Your task to perform on an android device: turn on location history Image 0: 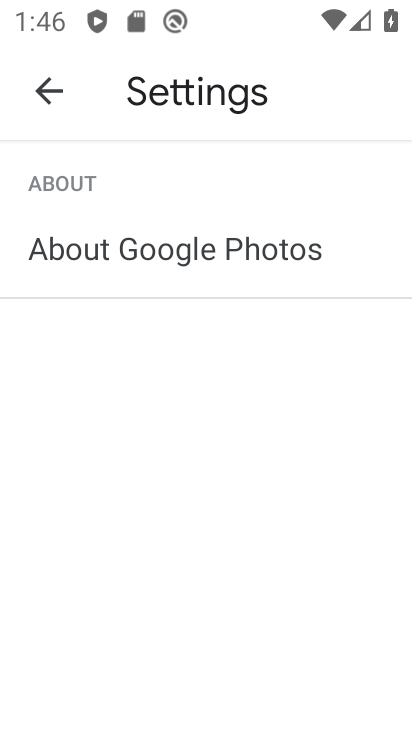
Step 0: press back button
Your task to perform on an android device: turn on location history Image 1: 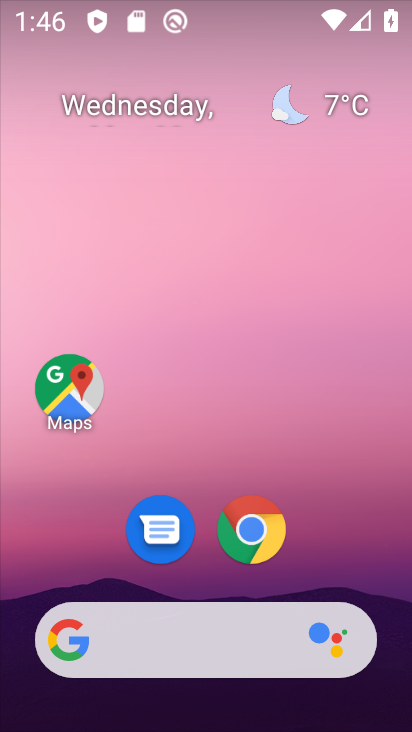
Step 1: drag from (43, 578) to (211, 180)
Your task to perform on an android device: turn on location history Image 2: 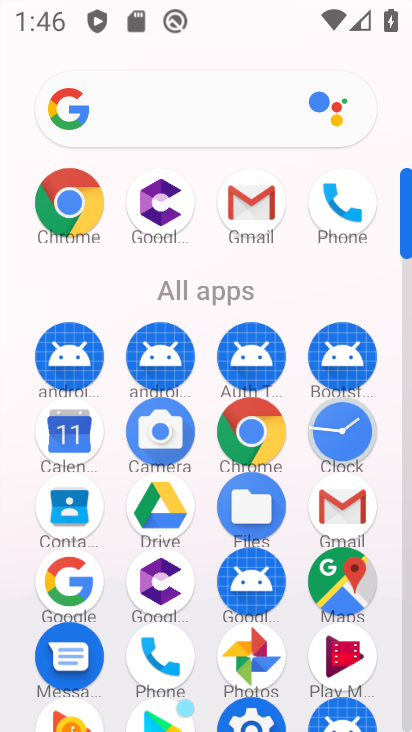
Step 2: click (239, 720)
Your task to perform on an android device: turn on location history Image 3: 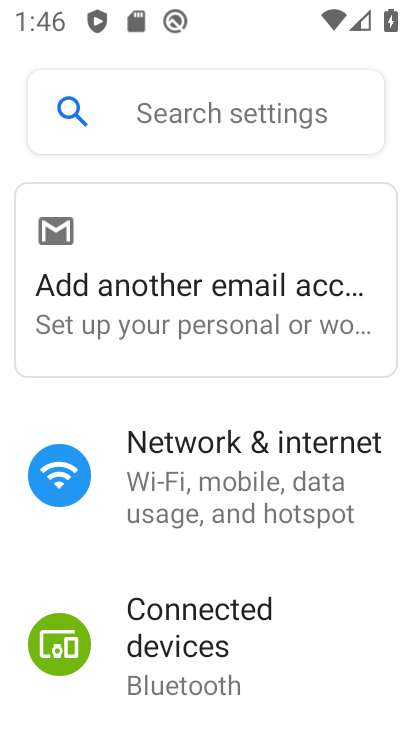
Step 3: drag from (191, 709) to (306, 251)
Your task to perform on an android device: turn on location history Image 4: 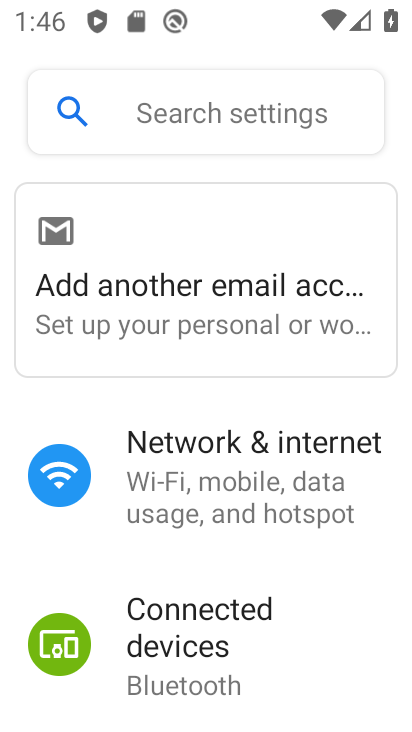
Step 4: drag from (128, 702) to (306, 172)
Your task to perform on an android device: turn on location history Image 5: 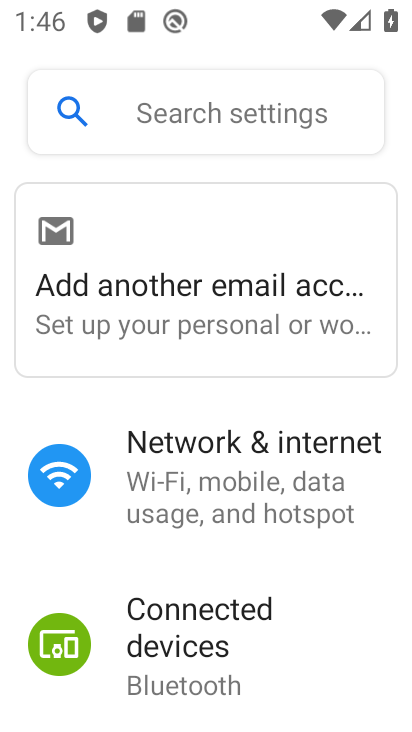
Step 5: drag from (153, 711) to (287, 167)
Your task to perform on an android device: turn on location history Image 6: 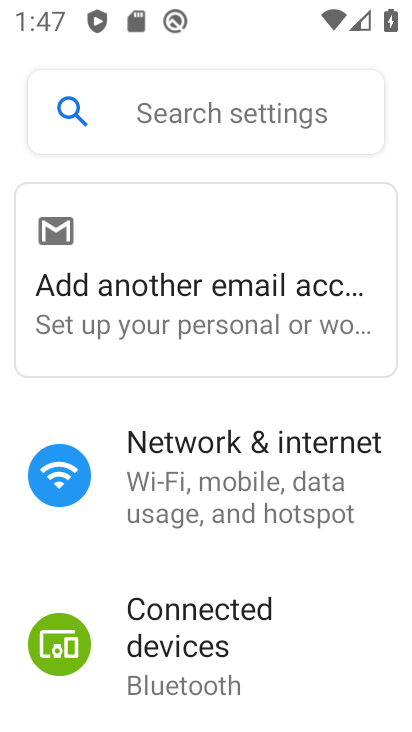
Step 6: drag from (169, 653) to (268, 184)
Your task to perform on an android device: turn on location history Image 7: 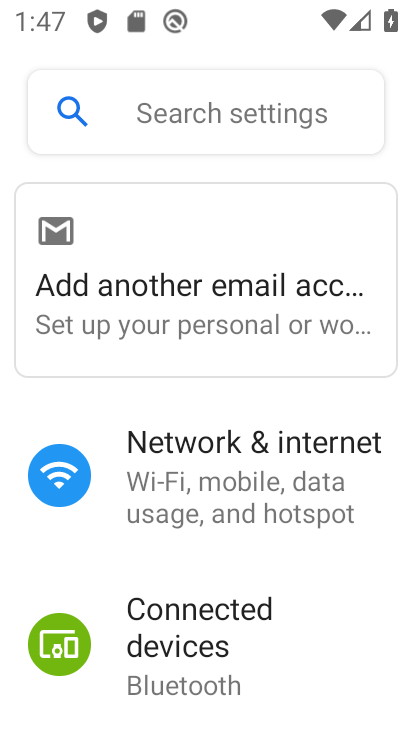
Step 7: drag from (111, 694) to (294, 164)
Your task to perform on an android device: turn on location history Image 8: 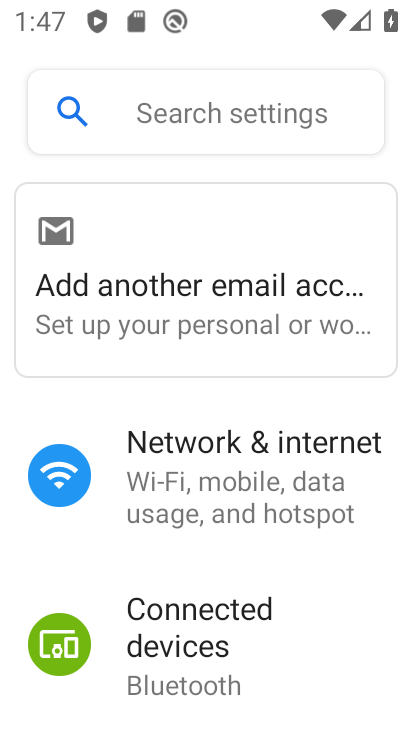
Step 8: drag from (62, 707) to (296, 171)
Your task to perform on an android device: turn on location history Image 9: 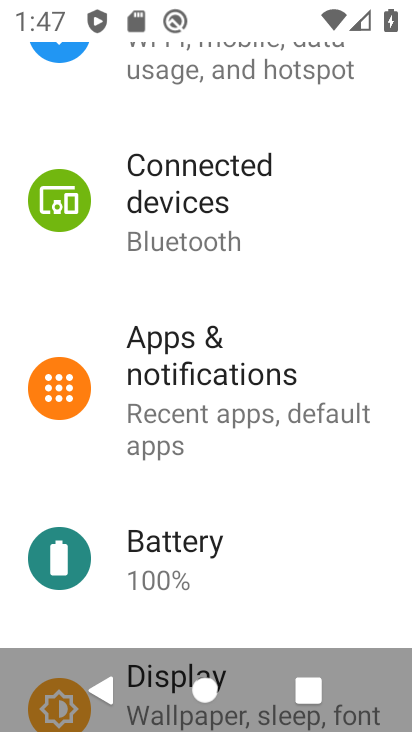
Step 9: drag from (30, 605) to (301, 97)
Your task to perform on an android device: turn on location history Image 10: 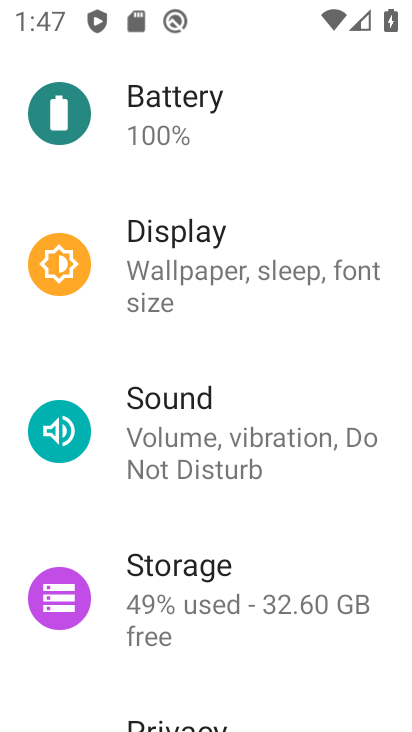
Step 10: drag from (3, 693) to (320, 132)
Your task to perform on an android device: turn on location history Image 11: 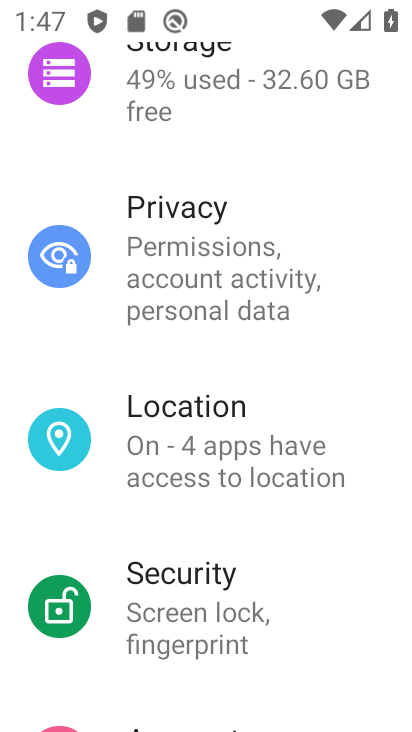
Step 11: click (149, 439)
Your task to perform on an android device: turn on location history Image 12: 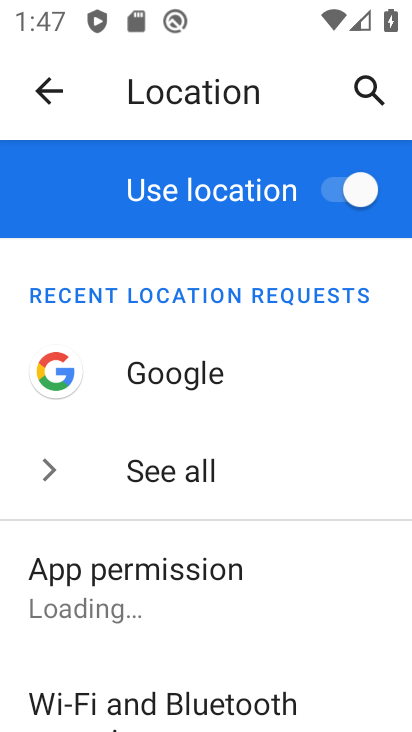
Step 12: drag from (95, 654) to (222, 228)
Your task to perform on an android device: turn on location history Image 13: 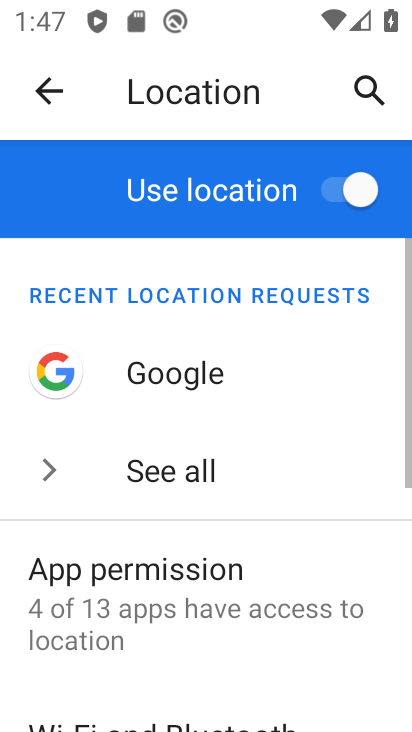
Step 13: drag from (34, 717) to (238, 229)
Your task to perform on an android device: turn on location history Image 14: 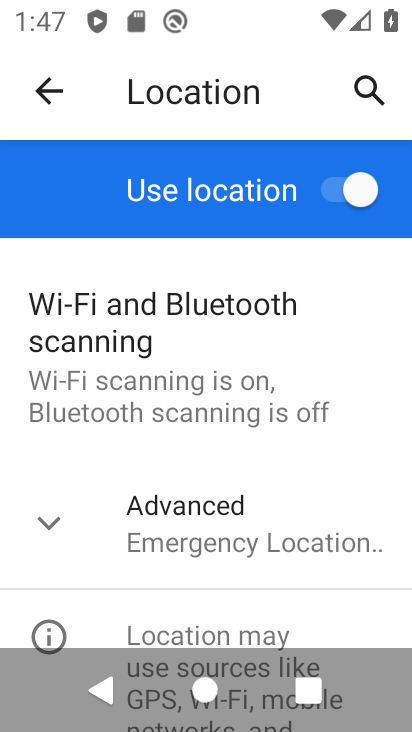
Step 14: click (202, 522)
Your task to perform on an android device: turn on location history Image 15: 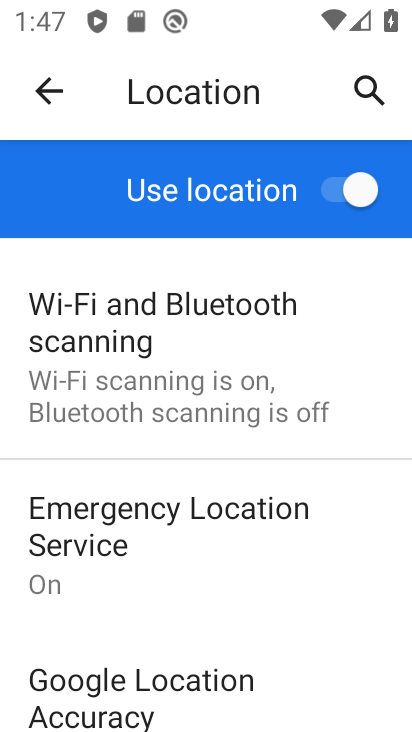
Step 15: drag from (36, 692) to (301, 157)
Your task to perform on an android device: turn on location history Image 16: 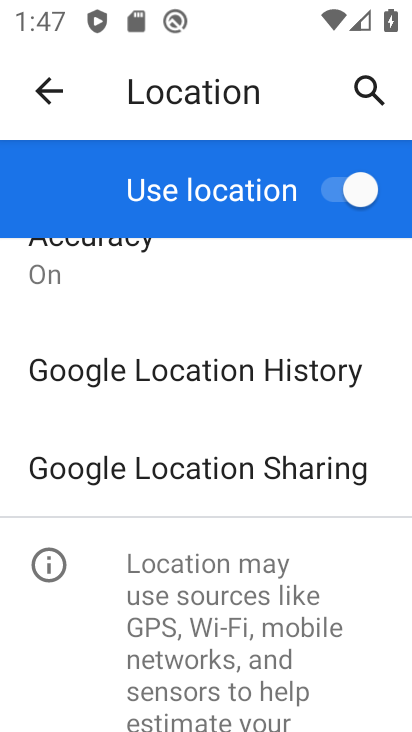
Step 16: click (148, 366)
Your task to perform on an android device: turn on location history Image 17: 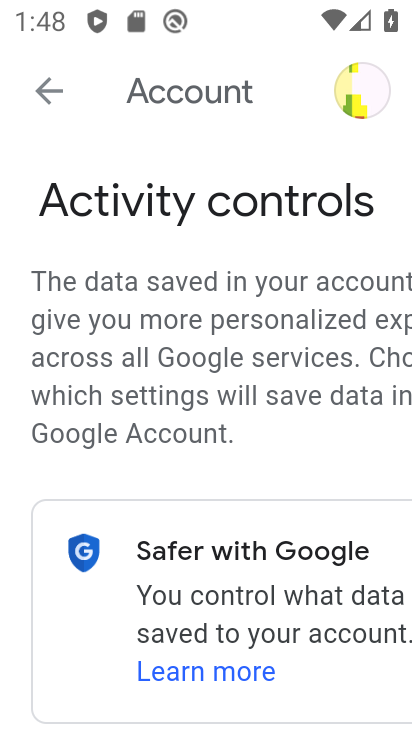
Step 17: drag from (79, 687) to (402, 183)
Your task to perform on an android device: turn on location history Image 18: 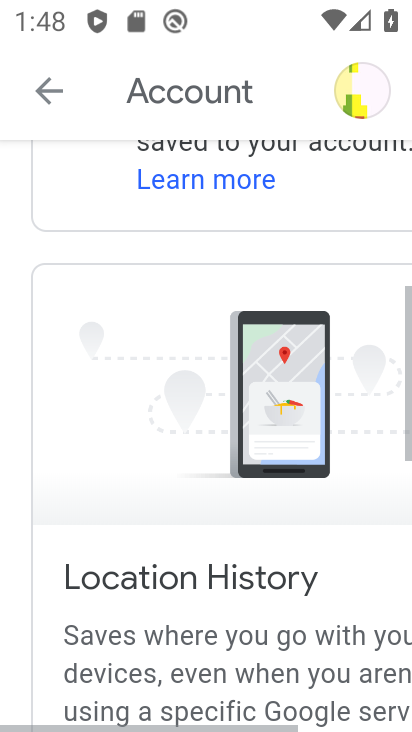
Step 18: drag from (175, 713) to (333, 214)
Your task to perform on an android device: turn on location history Image 19: 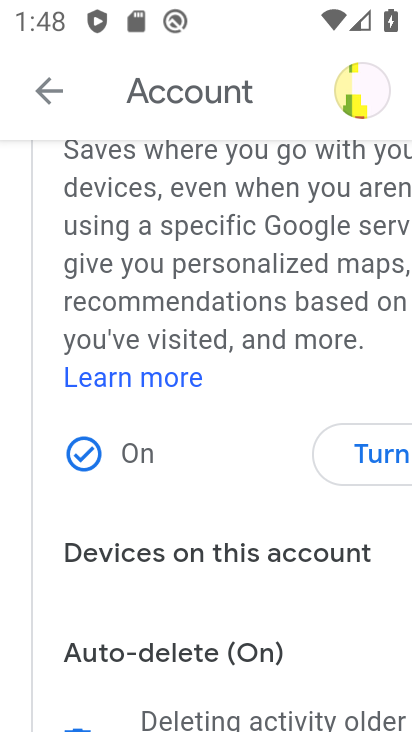
Step 19: click (376, 460)
Your task to perform on an android device: turn on location history Image 20: 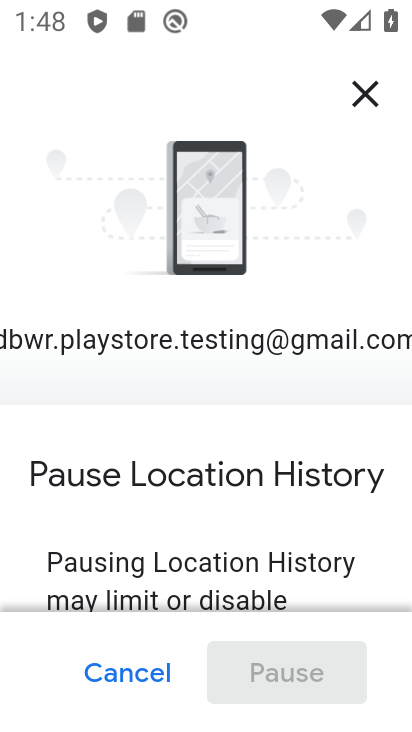
Step 20: drag from (41, 565) to (326, 111)
Your task to perform on an android device: turn on location history Image 21: 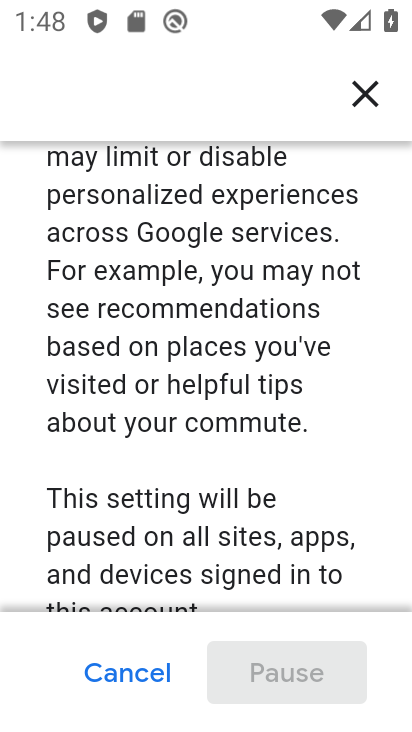
Step 21: drag from (234, 543) to (372, 105)
Your task to perform on an android device: turn on location history Image 22: 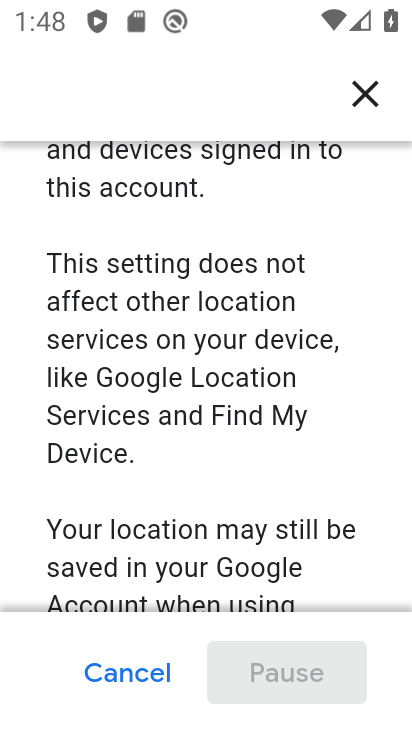
Step 22: drag from (147, 538) to (297, 53)
Your task to perform on an android device: turn on location history Image 23: 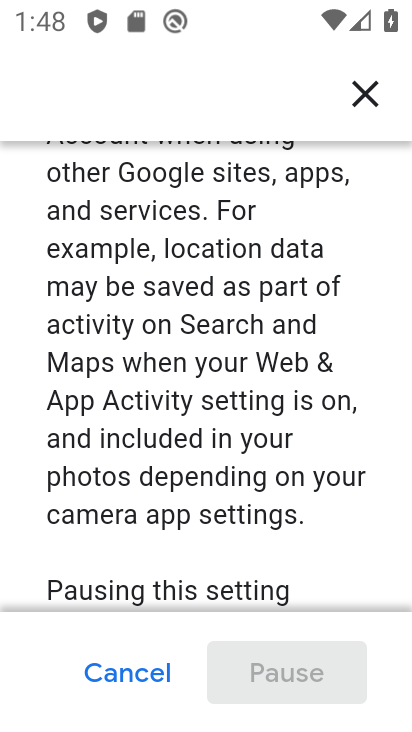
Step 23: drag from (117, 533) to (353, 61)
Your task to perform on an android device: turn on location history Image 24: 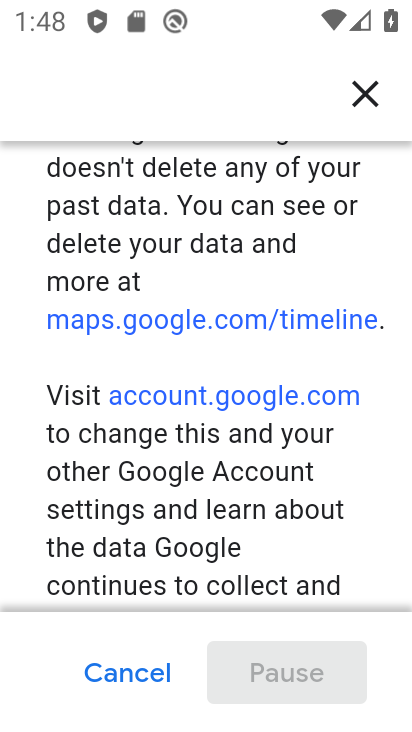
Step 24: drag from (199, 618) to (411, 268)
Your task to perform on an android device: turn on location history Image 25: 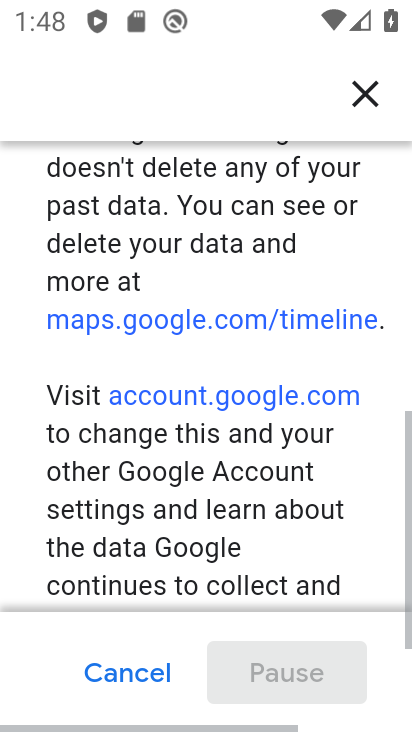
Step 25: drag from (149, 621) to (376, 93)
Your task to perform on an android device: turn on location history Image 26: 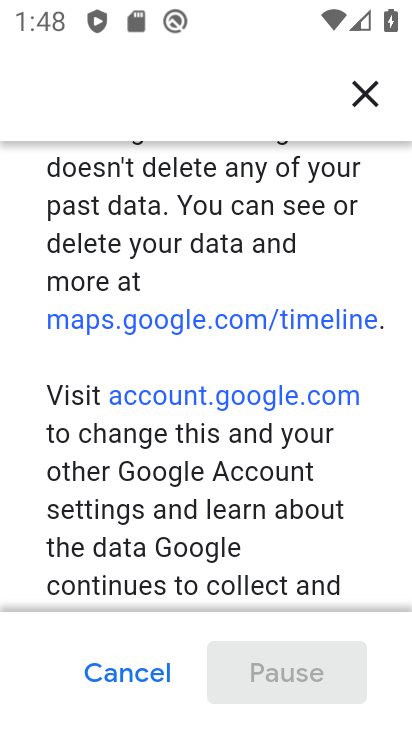
Step 26: drag from (137, 560) to (230, 226)
Your task to perform on an android device: turn on location history Image 27: 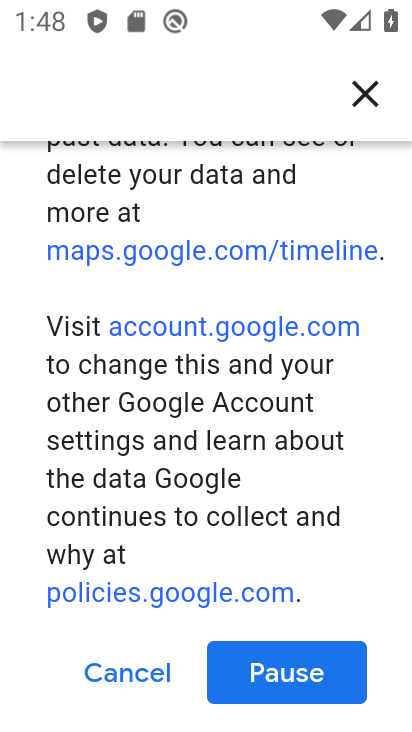
Step 27: click (289, 679)
Your task to perform on an android device: turn on location history Image 28: 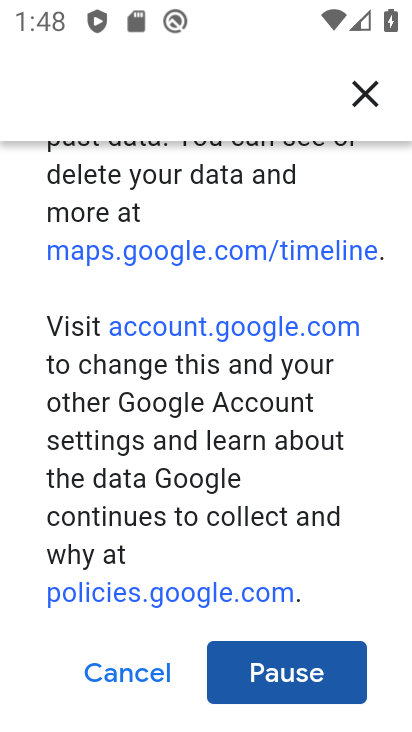
Step 28: click (274, 692)
Your task to perform on an android device: turn on location history Image 29: 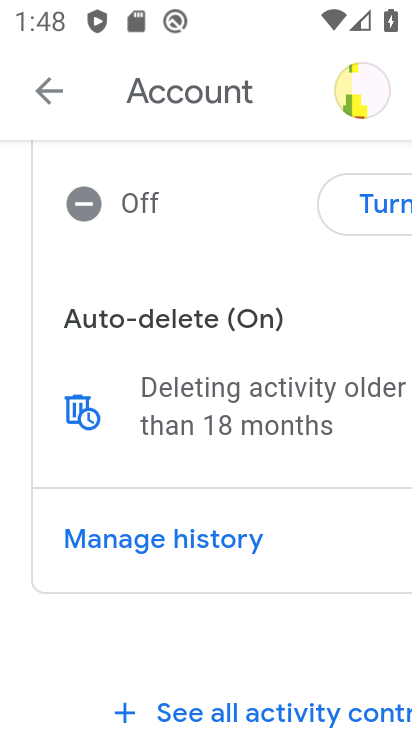
Step 29: task complete